Your task to perform on an android device: find snoozed emails in the gmail app Image 0: 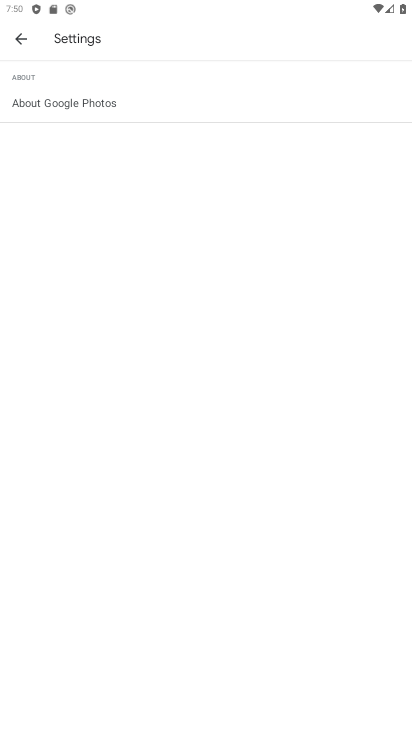
Step 0: press home button
Your task to perform on an android device: find snoozed emails in the gmail app Image 1: 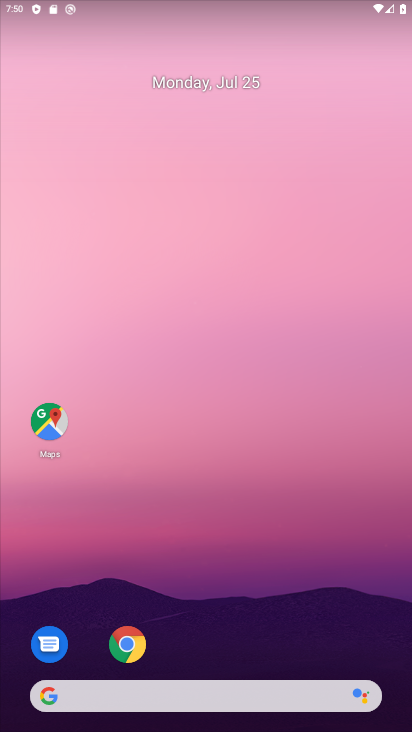
Step 1: drag from (167, 628) to (176, 176)
Your task to perform on an android device: find snoozed emails in the gmail app Image 2: 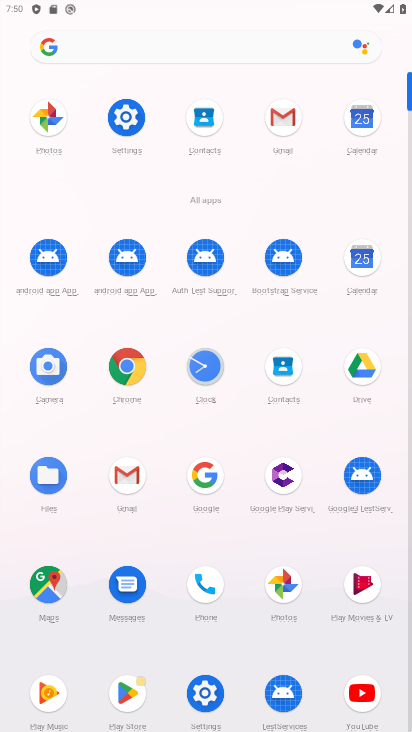
Step 2: click (281, 139)
Your task to perform on an android device: find snoozed emails in the gmail app Image 3: 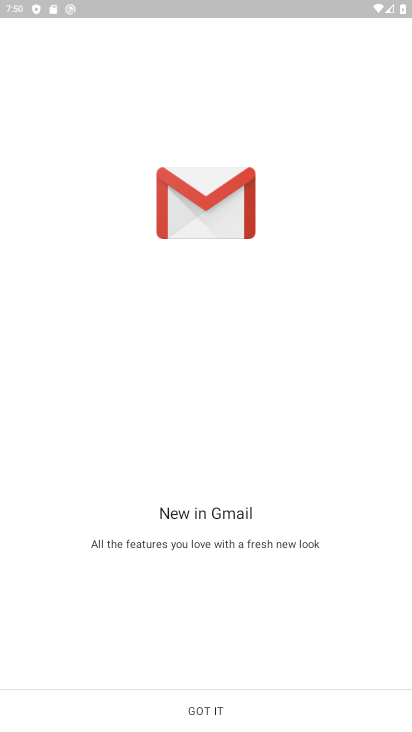
Step 3: click (198, 704)
Your task to perform on an android device: find snoozed emails in the gmail app Image 4: 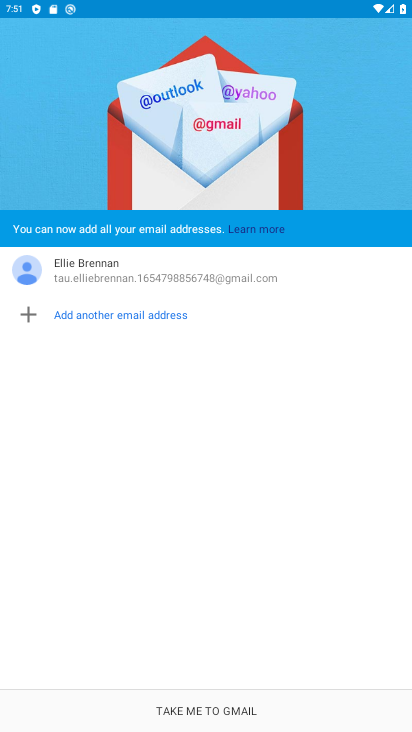
Step 4: click (198, 704)
Your task to perform on an android device: find snoozed emails in the gmail app Image 5: 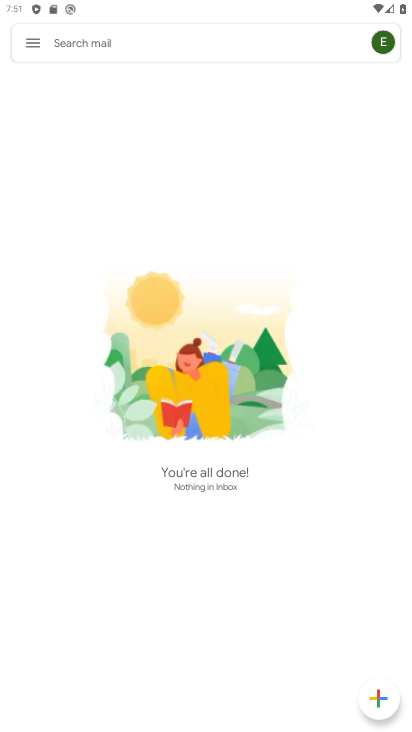
Step 5: click (34, 42)
Your task to perform on an android device: find snoozed emails in the gmail app Image 6: 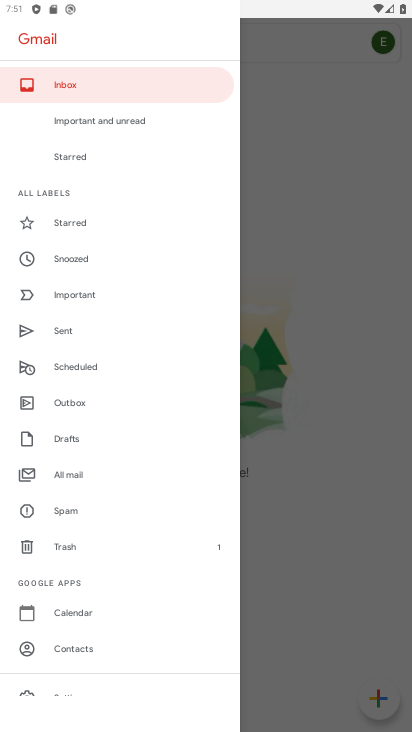
Step 6: click (69, 259)
Your task to perform on an android device: find snoozed emails in the gmail app Image 7: 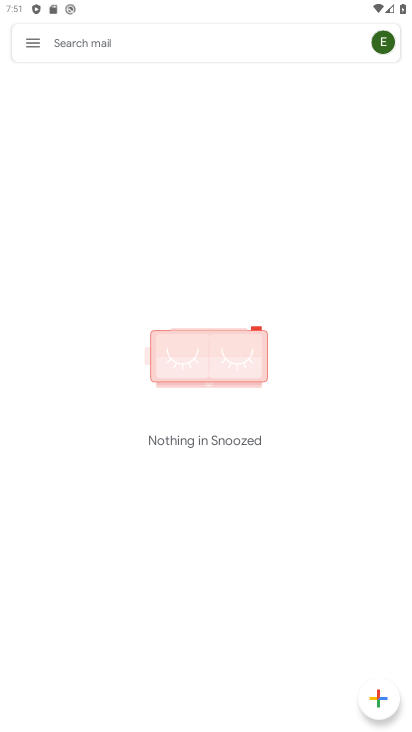
Step 7: task complete